Your task to perform on an android device: toggle translation in the chrome app Image 0: 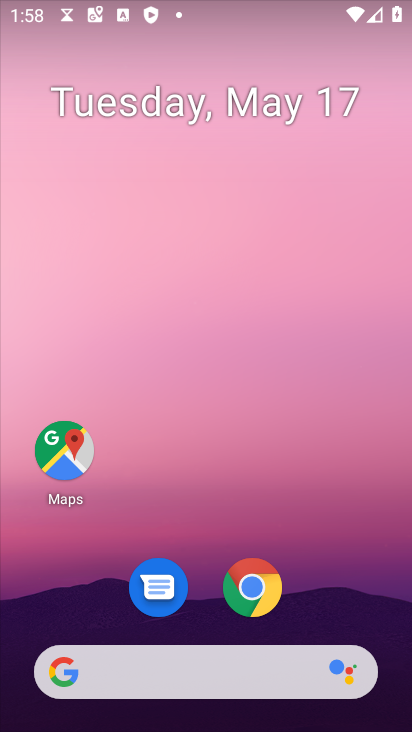
Step 0: drag from (208, 589) to (242, 137)
Your task to perform on an android device: toggle translation in the chrome app Image 1: 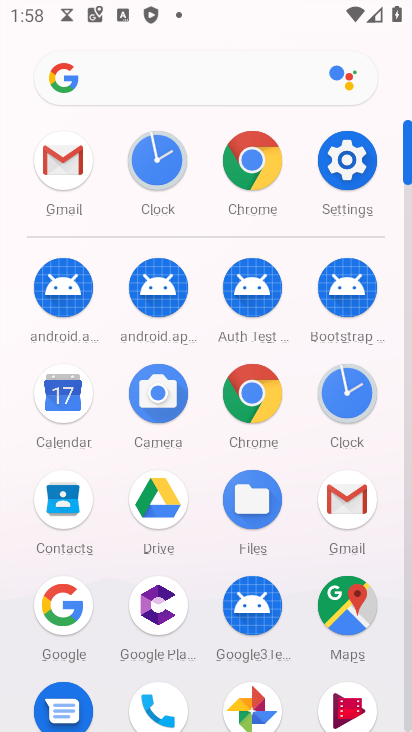
Step 1: click (249, 162)
Your task to perform on an android device: toggle translation in the chrome app Image 2: 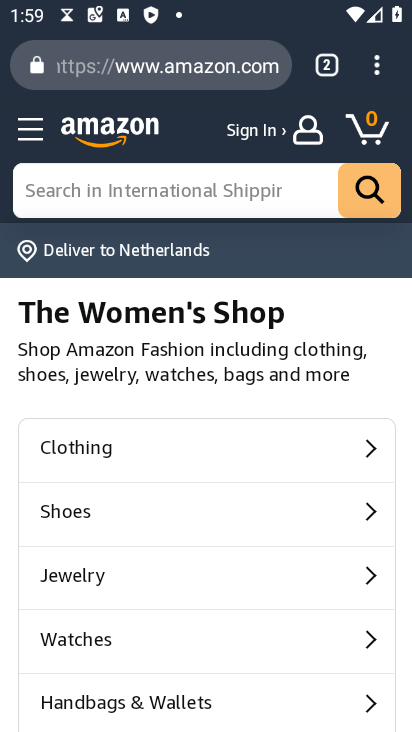
Step 2: click (373, 71)
Your task to perform on an android device: toggle translation in the chrome app Image 3: 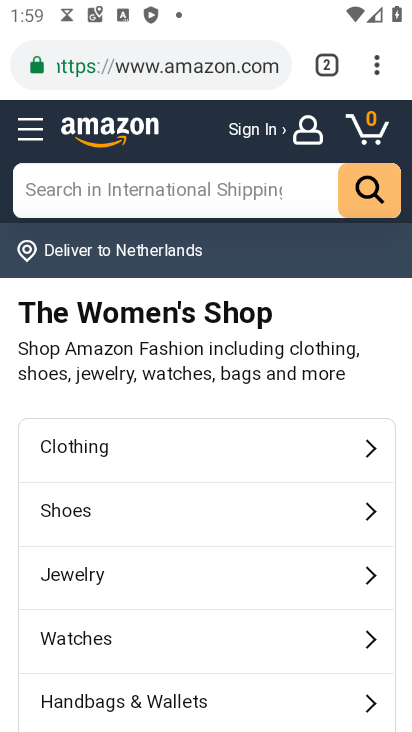
Step 3: click (381, 61)
Your task to perform on an android device: toggle translation in the chrome app Image 4: 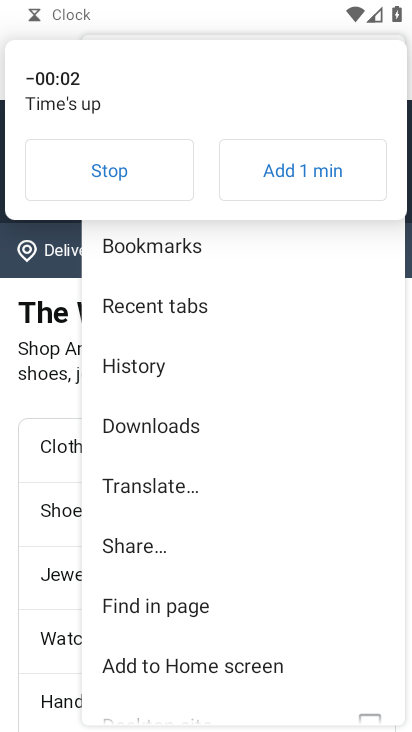
Step 4: click (113, 177)
Your task to perform on an android device: toggle translation in the chrome app Image 5: 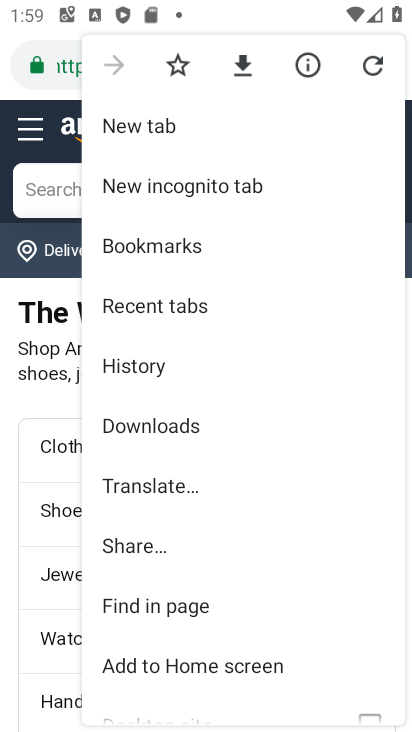
Step 5: drag from (179, 585) to (233, 187)
Your task to perform on an android device: toggle translation in the chrome app Image 6: 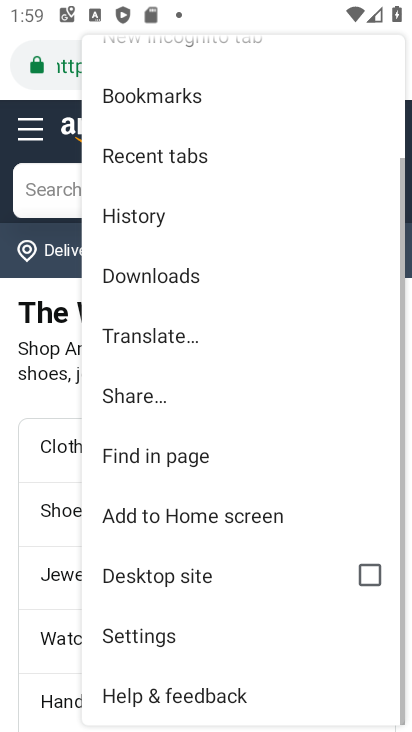
Step 6: click (187, 630)
Your task to perform on an android device: toggle translation in the chrome app Image 7: 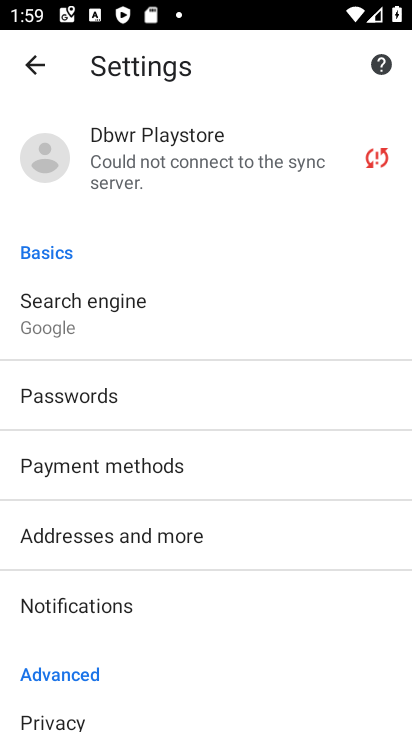
Step 7: drag from (242, 626) to (336, 260)
Your task to perform on an android device: toggle translation in the chrome app Image 8: 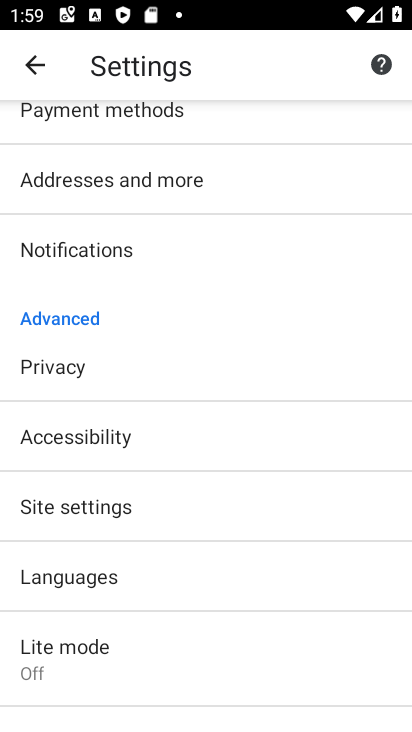
Step 8: drag from (227, 628) to (281, 237)
Your task to perform on an android device: toggle translation in the chrome app Image 9: 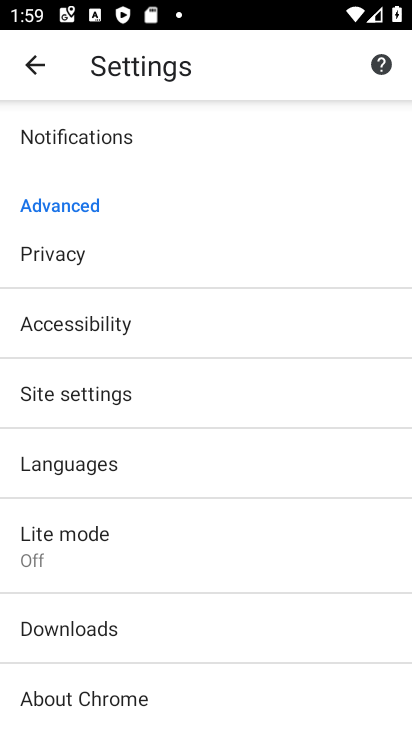
Step 9: click (123, 561)
Your task to perform on an android device: toggle translation in the chrome app Image 10: 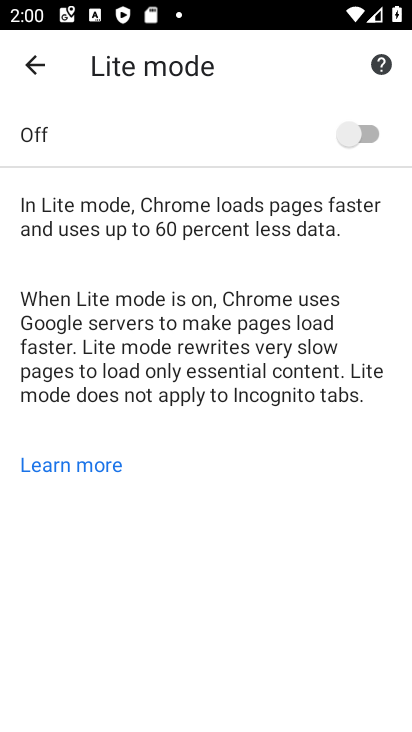
Step 10: click (45, 60)
Your task to perform on an android device: toggle translation in the chrome app Image 11: 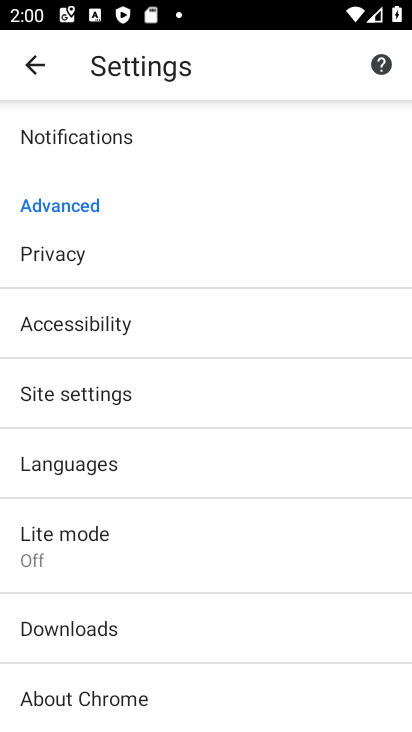
Step 11: click (106, 461)
Your task to perform on an android device: toggle translation in the chrome app Image 12: 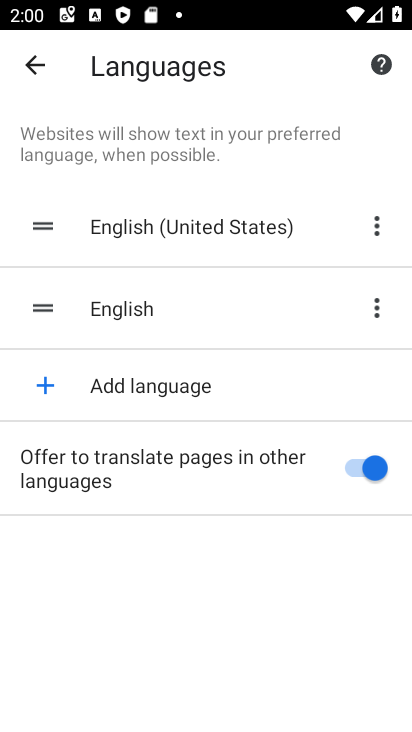
Step 12: click (350, 449)
Your task to perform on an android device: toggle translation in the chrome app Image 13: 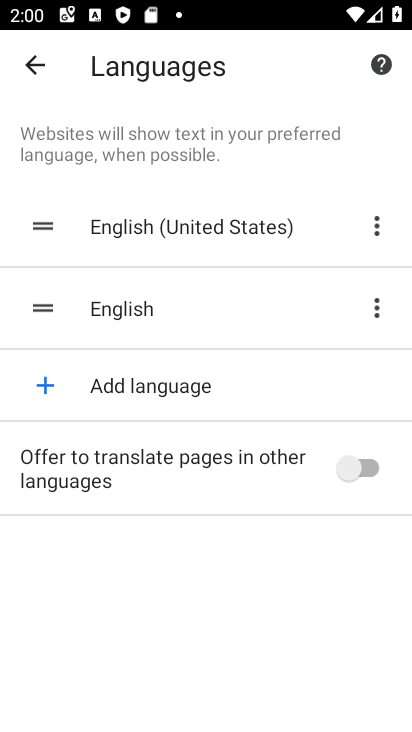
Step 13: task complete